Your task to perform on an android device: uninstall "WhatsApp Messenger" Image 0: 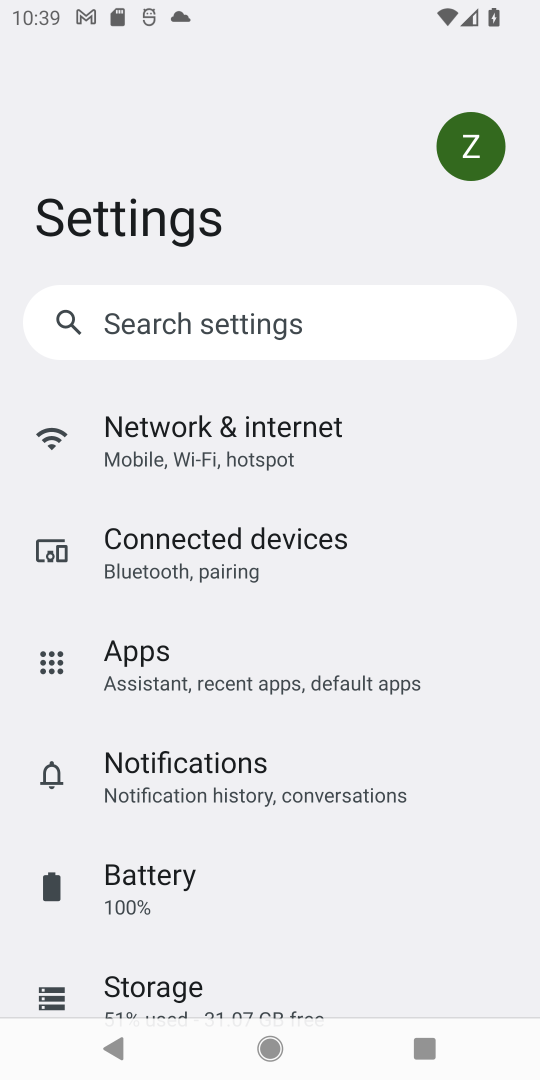
Step 0: press home button
Your task to perform on an android device: uninstall "WhatsApp Messenger" Image 1: 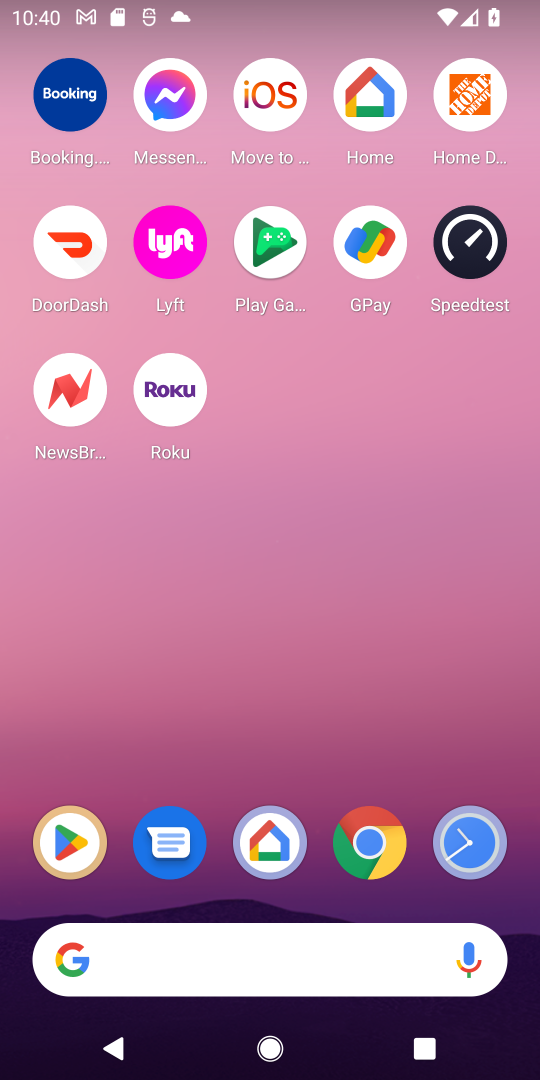
Step 1: click (78, 845)
Your task to perform on an android device: uninstall "WhatsApp Messenger" Image 2: 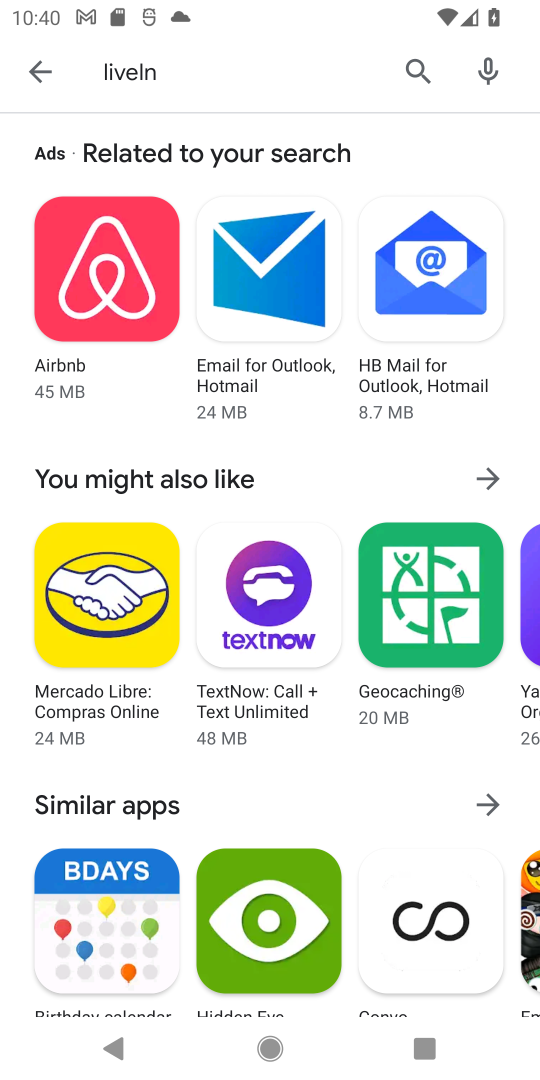
Step 2: click (414, 67)
Your task to perform on an android device: uninstall "WhatsApp Messenger" Image 3: 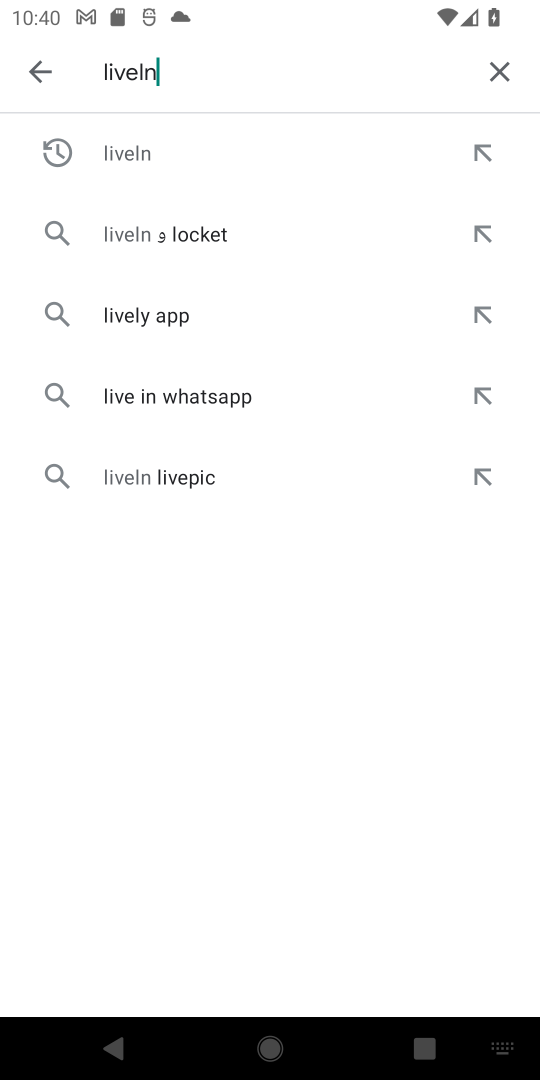
Step 3: click (508, 56)
Your task to perform on an android device: uninstall "WhatsApp Messenger" Image 4: 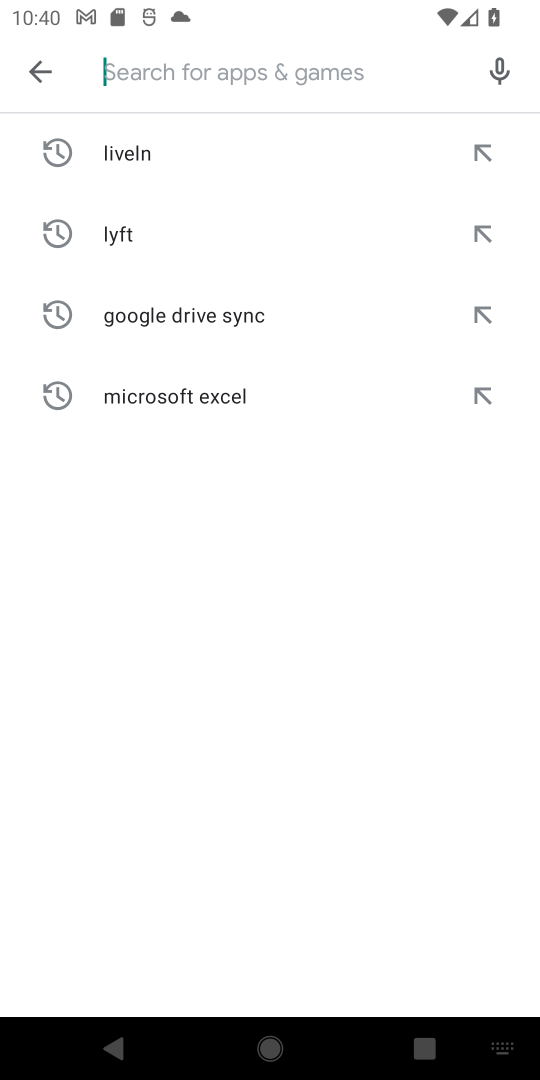
Step 4: click (174, 65)
Your task to perform on an android device: uninstall "WhatsApp Messenger" Image 5: 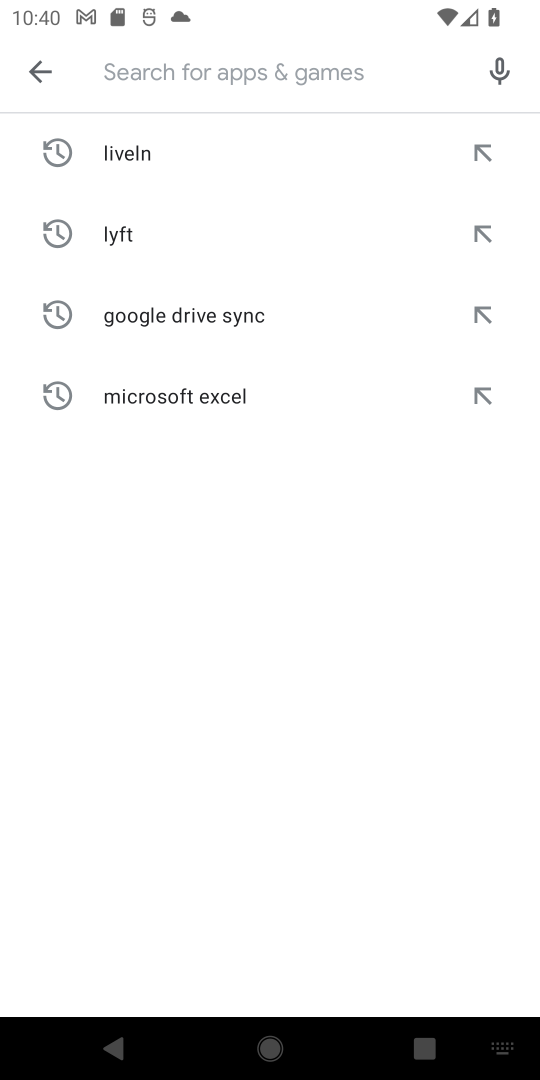
Step 5: type "WhatsApp Messenger"
Your task to perform on an android device: uninstall "WhatsApp Messenger" Image 6: 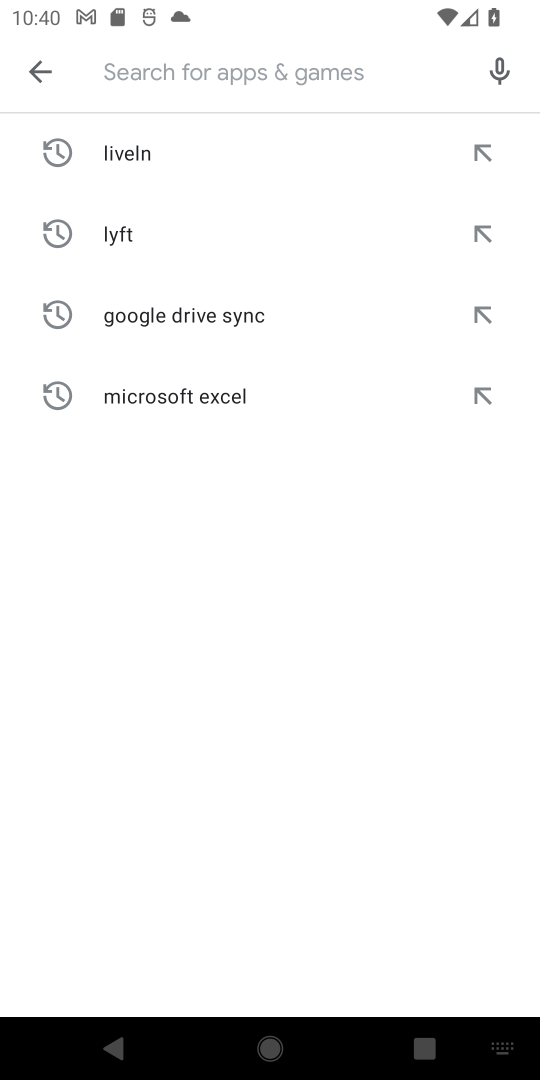
Step 6: click (152, 597)
Your task to perform on an android device: uninstall "WhatsApp Messenger" Image 7: 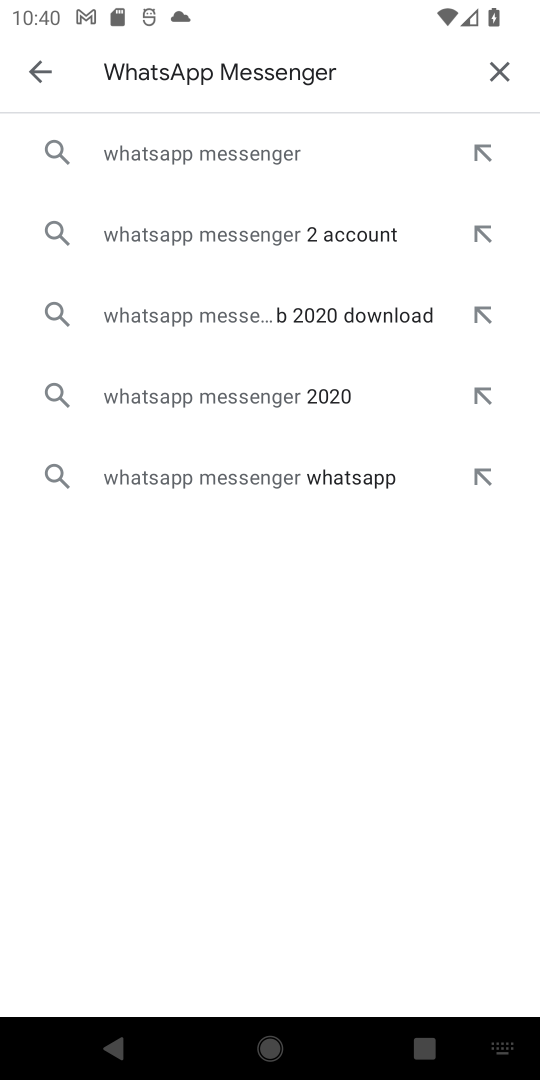
Step 7: click (195, 137)
Your task to perform on an android device: uninstall "WhatsApp Messenger" Image 8: 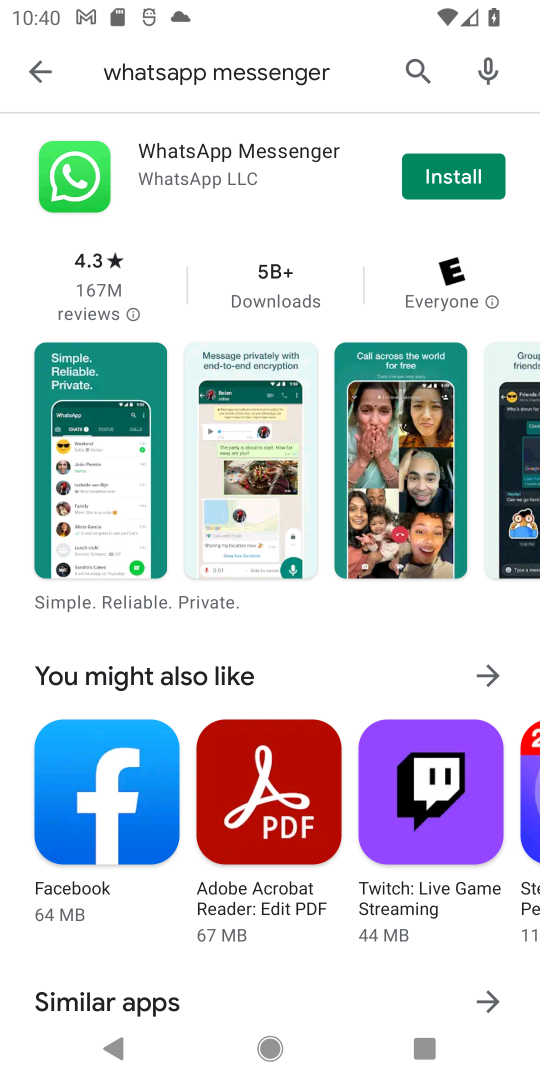
Step 8: task complete